Your task to perform on an android device: Go to Wikipedia Image 0: 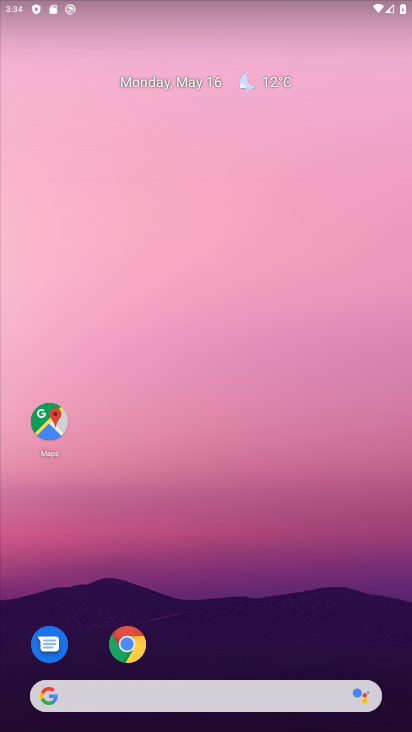
Step 0: click (124, 635)
Your task to perform on an android device: Go to Wikipedia Image 1: 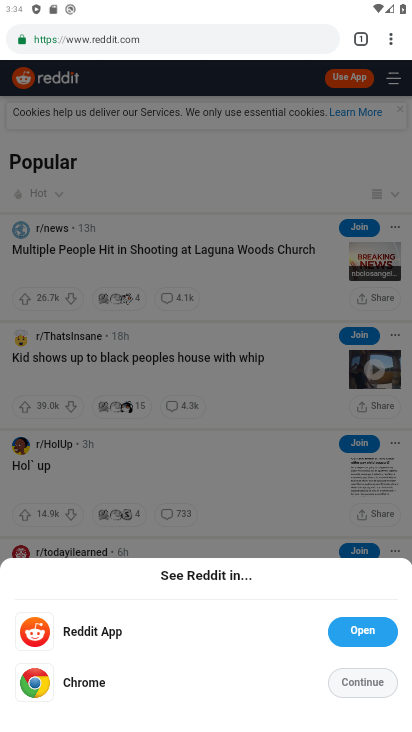
Step 1: click (354, 32)
Your task to perform on an android device: Go to Wikipedia Image 2: 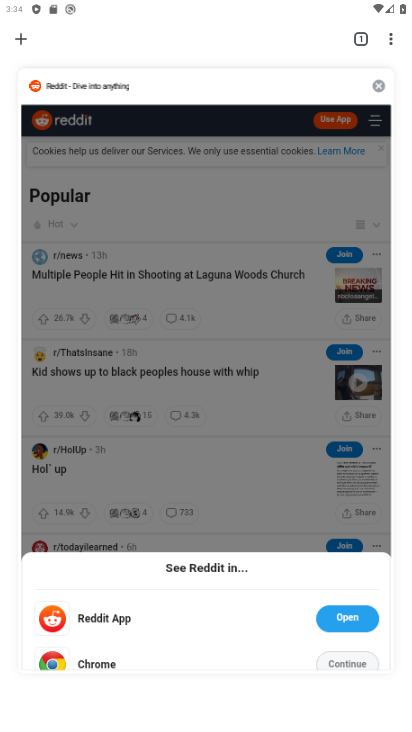
Step 2: click (19, 38)
Your task to perform on an android device: Go to Wikipedia Image 3: 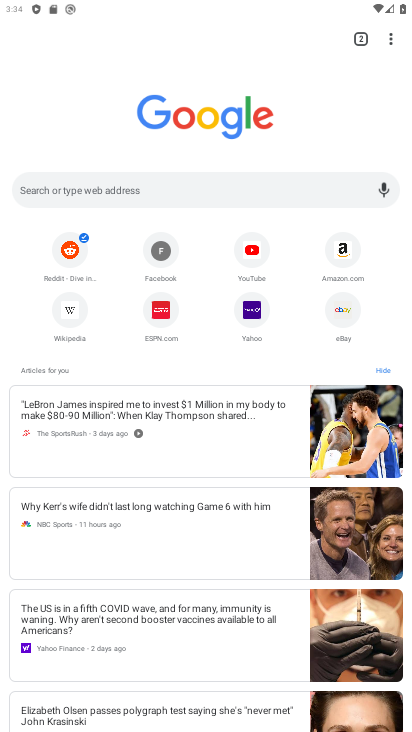
Step 3: click (66, 308)
Your task to perform on an android device: Go to Wikipedia Image 4: 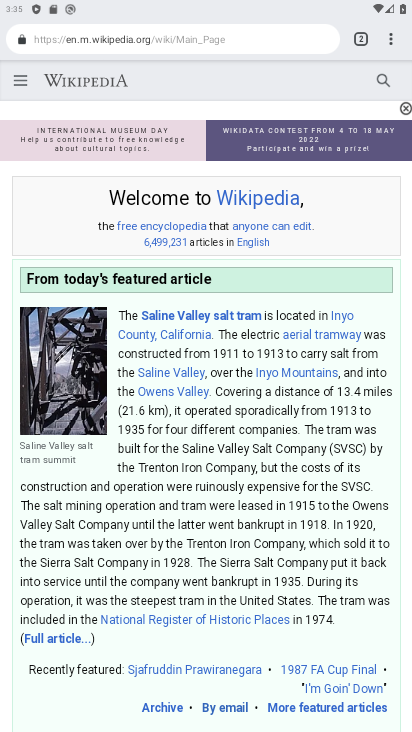
Step 4: task complete